Your task to perform on an android device: allow notifications from all sites in the chrome app Image 0: 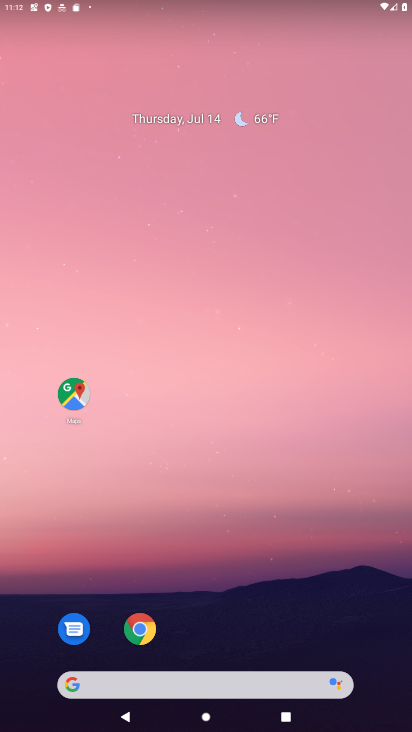
Step 0: press home button
Your task to perform on an android device: allow notifications from all sites in the chrome app Image 1: 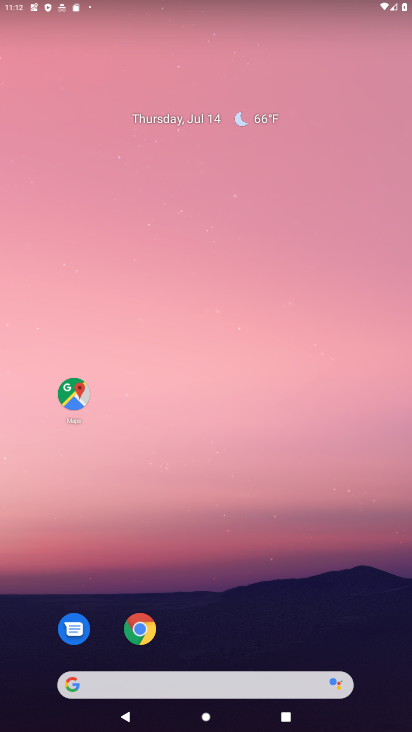
Step 1: drag from (240, 589) to (247, 0)
Your task to perform on an android device: allow notifications from all sites in the chrome app Image 2: 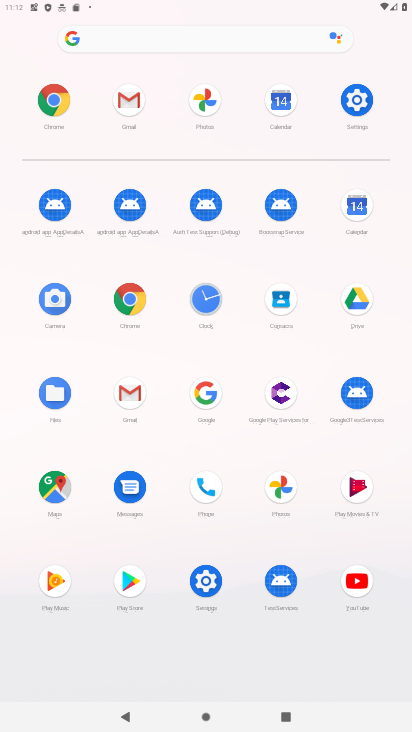
Step 2: click (52, 104)
Your task to perform on an android device: allow notifications from all sites in the chrome app Image 3: 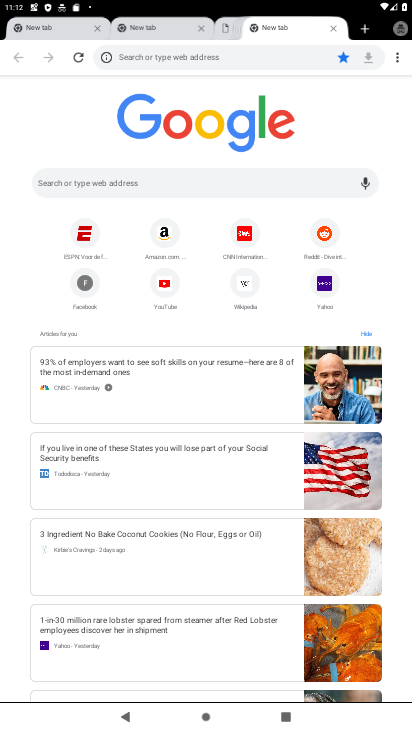
Step 3: drag from (400, 56) to (272, 261)
Your task to perform on an android device: allow notifications from all sites in the chrome app Image 4: 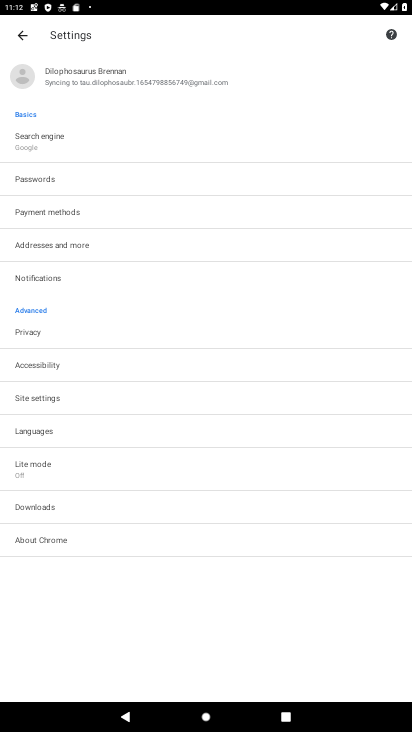
Step 4: drag from (59, 407) to (54, 649)
Your task to perform on an android device: allow notifications from all sites in the chrome app Image 5: 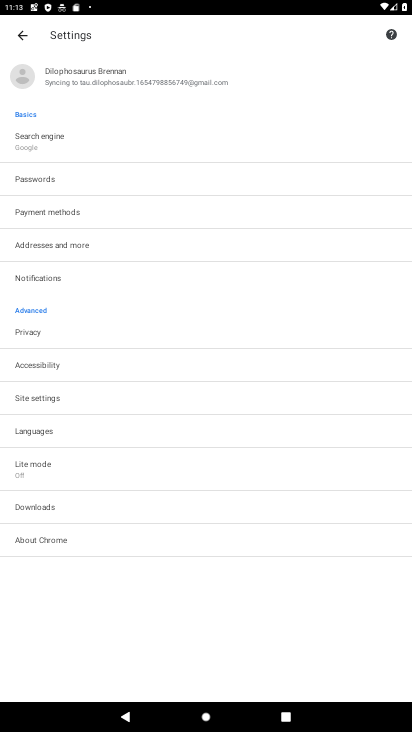
Step 5: click (42, 272)
Your task to perform on an android device: allow notifications from all sites in the chrome app Image 6: 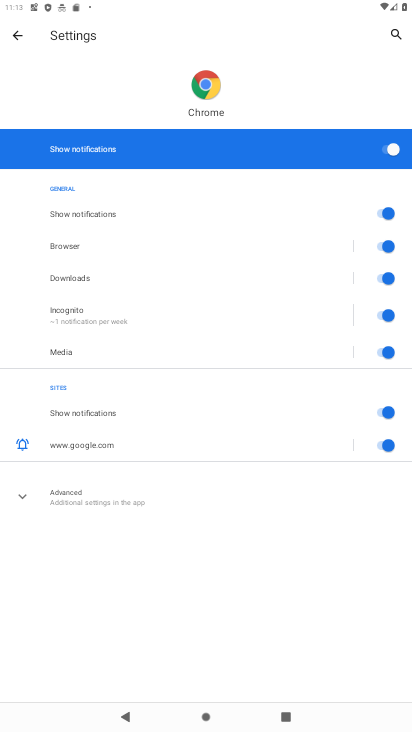
Step 6: task complete